Your task to perform on an android device: turn off translation in the chrome app Image 0: 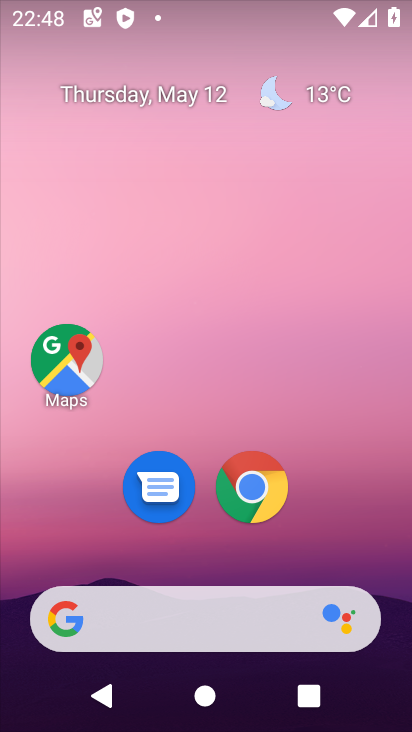
Step 0: click (260, 480)
Your task to perform on an android device: turn off translation in the chrome app Image 1: 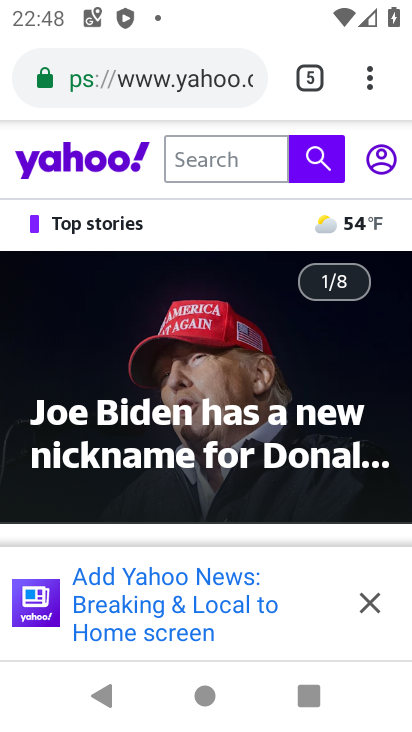
Step 1: click (369, 72)
Your task to perform on an android device: turn off translation in the chrome app Image 2: 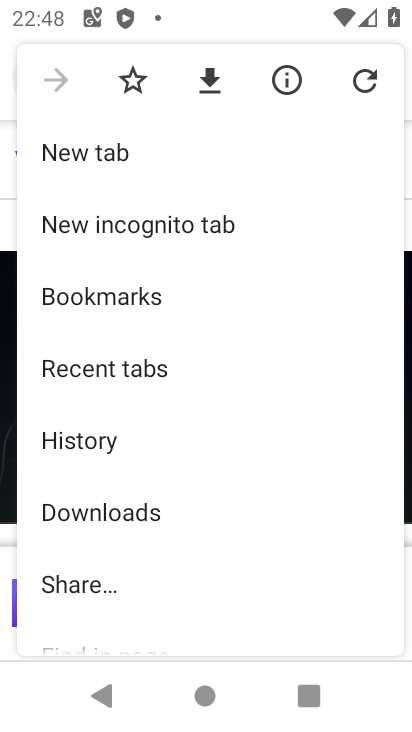
Step 2: drag from (140, 545) to (163, 163)
Your task to perform on an android device: turn off translation in the chrome app Image 3: 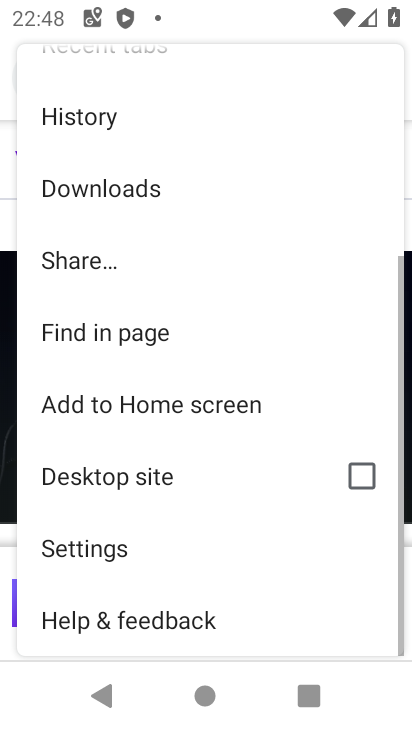
Step 3: click (128, 570)
Your task to perform on an android device: turn off translation in the chrome app Image 4: 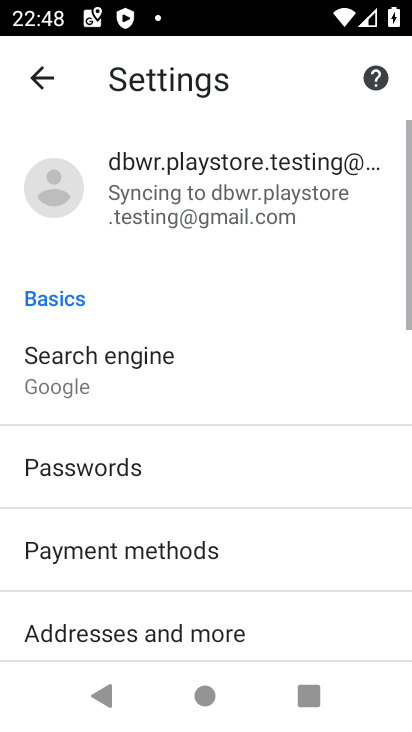
Step 4: drag from (128, 570) to (213, 56)
Your task to perform on an android device: turn off translation in the chrome app Image 5: 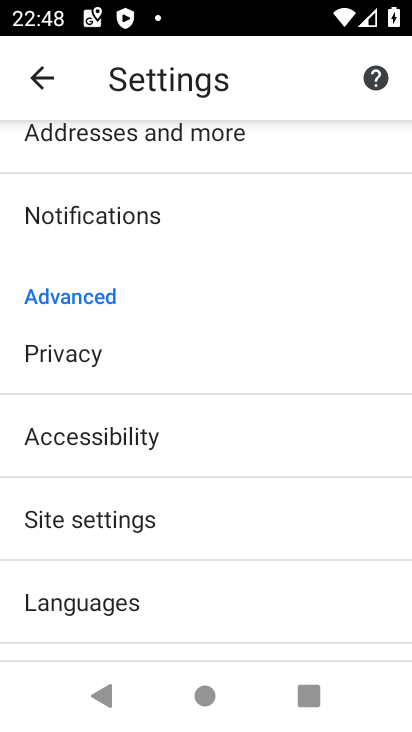
Step 5: drag from (70, 596) to (137, 226)
Your task to perform on an android device: turn off translation in the chrome app Image 6: 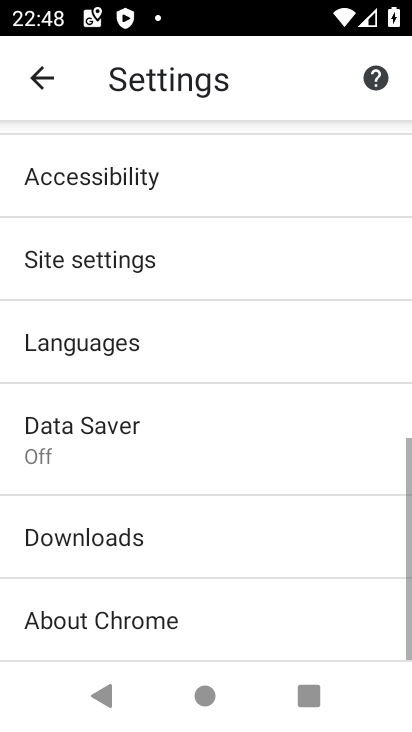
Step 6: click (122, 311)
Your task to perform on an android device: turn off translation in the chrome app Image 7: 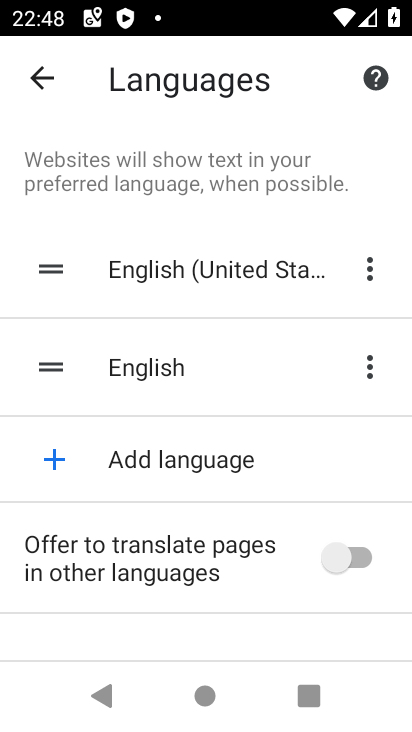
Step 7: task complete